Your task to perform on an android device: toggle airplane mode Image 0: 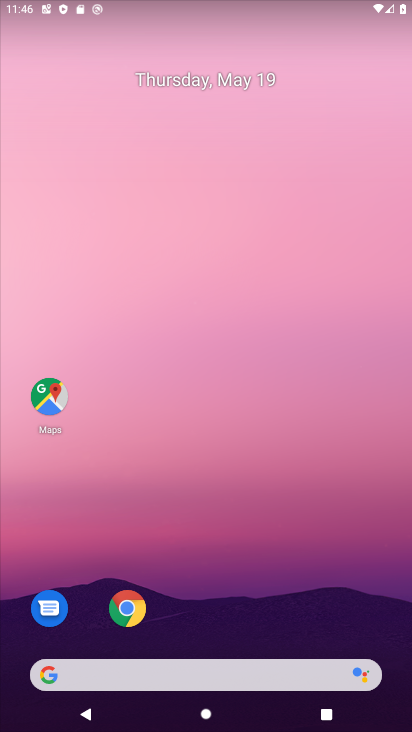
Step 0: drag from (380, 629) to (371, 166)
Your task to perform on an android device: toggle airplane mode Image 1: 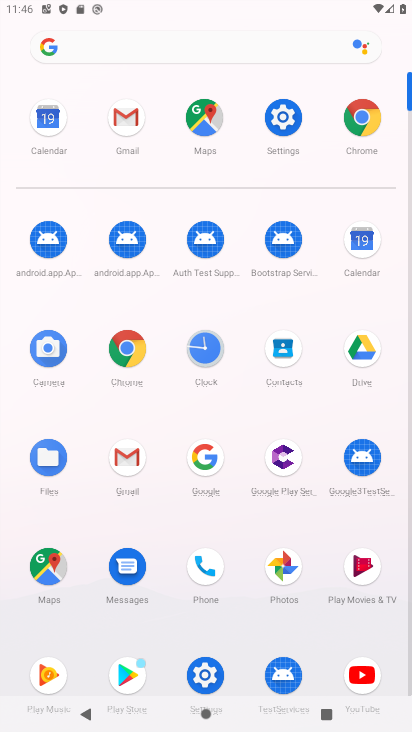
Step 1: click (219, 677)
Your task to perform on an android device: toggle airplane mode Image 2: 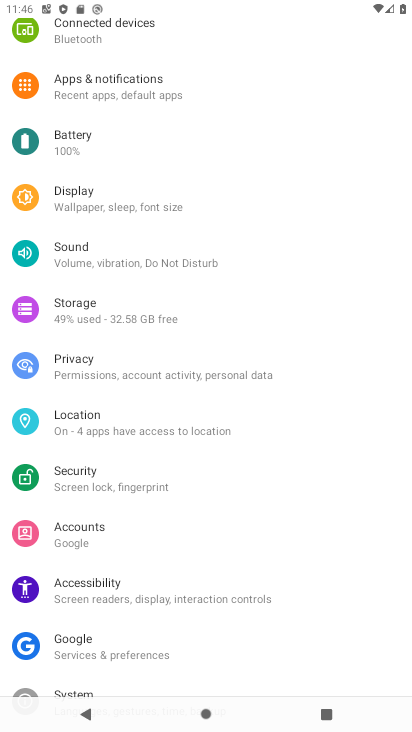
Step 2: drag from (321, 656) to (337, 550)
Your task to perform on an android device: toggle airplane mode Image 3: 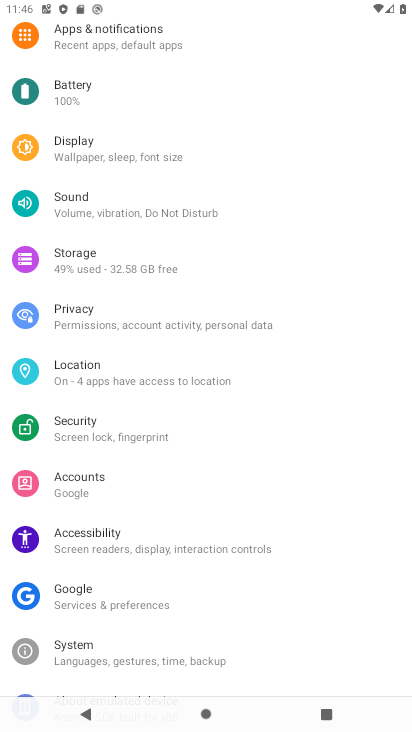
Step 3: drag from (342, 645) to (351, 518)
Your task to perform on an android device: toggle airplane mode Image 4: 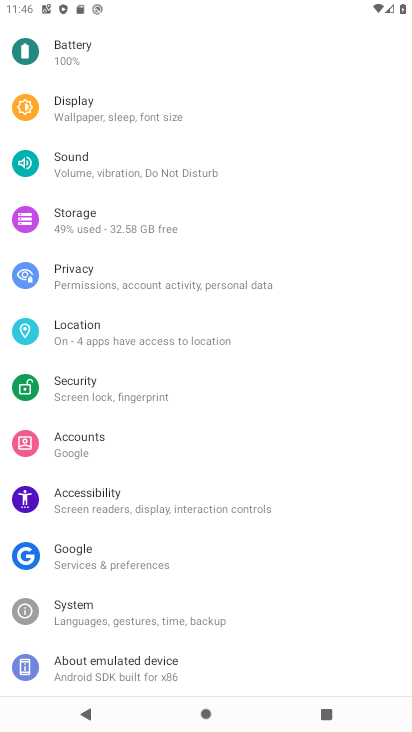
Step 4: drag from (306, 641) to (328, 375)
Your task to perform on an android device: toggle airplane mode Image 5: 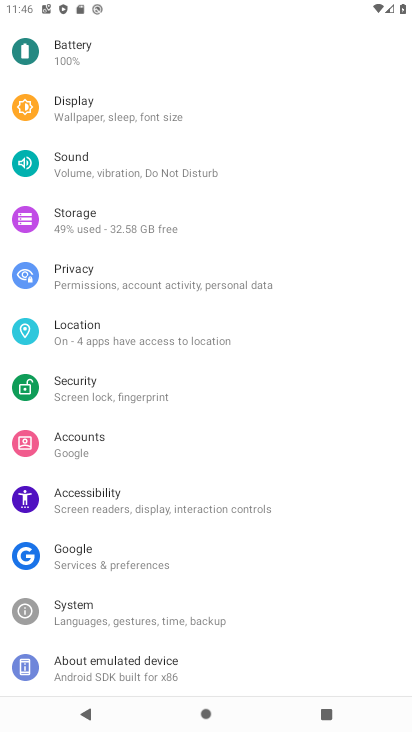
Step 5: drag from (344, 294) to (344, 431)
Your task to perform on an android device: toggle airplane mode Image 6: 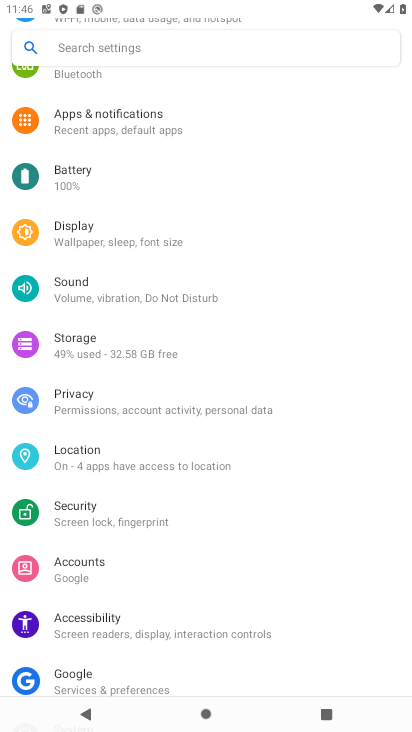
Step 6: drag from (344, 285) to (335, 401)
Your task to perform on an android device: toggle airplane mode Image 7: 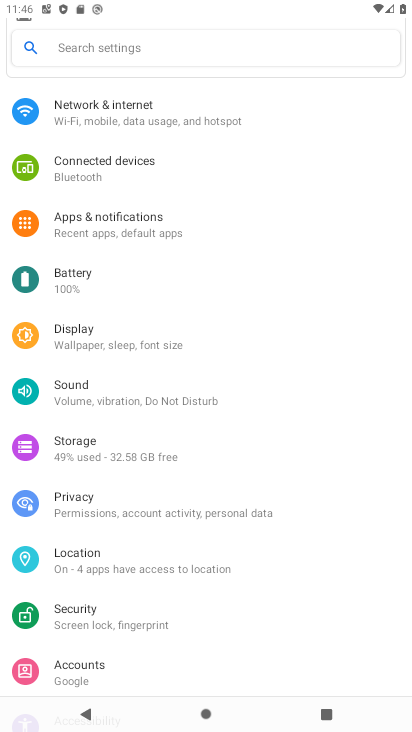
Step 7: drag from (306, 219) to (301, 377)
Your task to perform on an android device: toggle airplane mode Image 8: 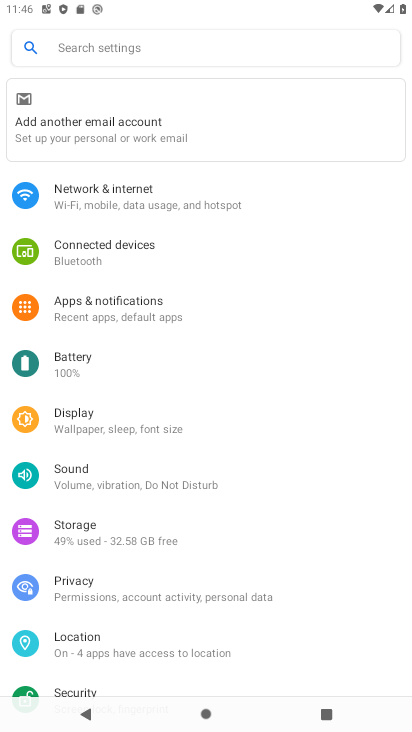
Step 8: click (189, 211)
Your task to perform on an android device: toggle airplane mode Image 9: 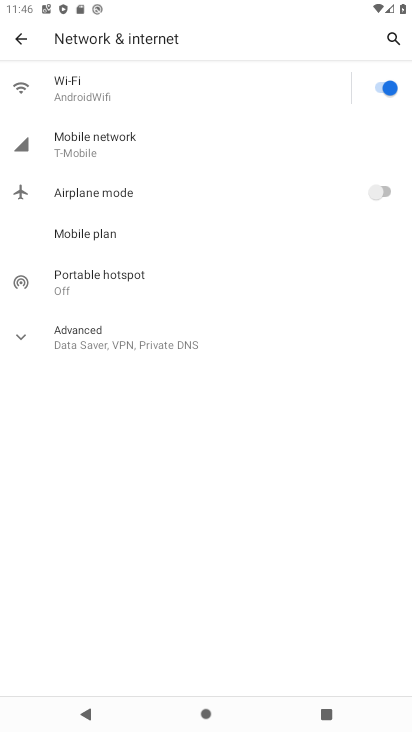
Step 9: click (377, 197)
Your task to perform on an android device: toggle airplane mode Image 10: 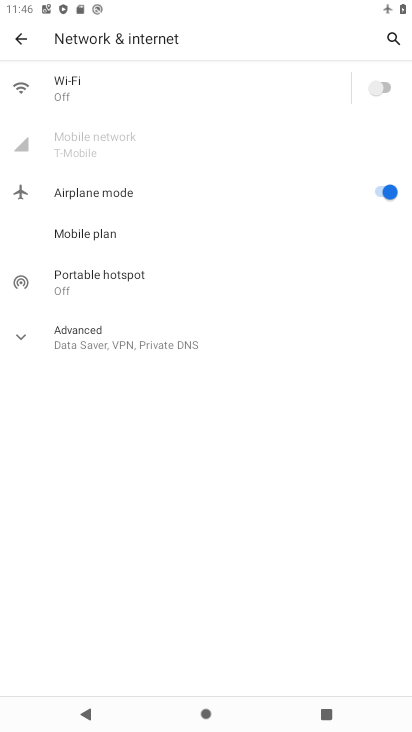
Step 10: task complete